Your task to perform on an android device: turn off wifi Image 0: 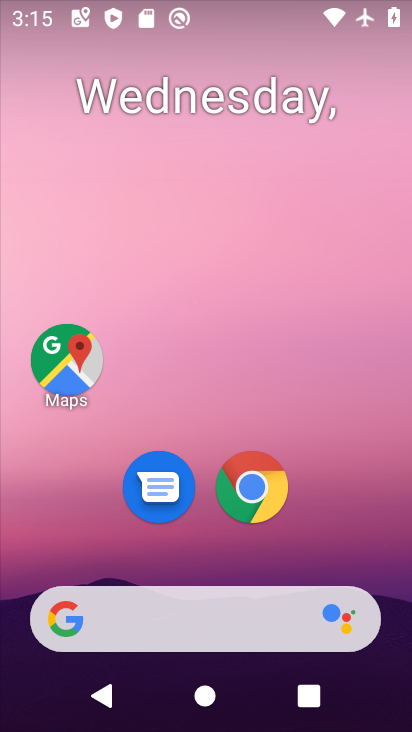
Step 0: drag from (315, 536) to (264, 75)
Your task to perform on an android device: turn off wifi Image 1: 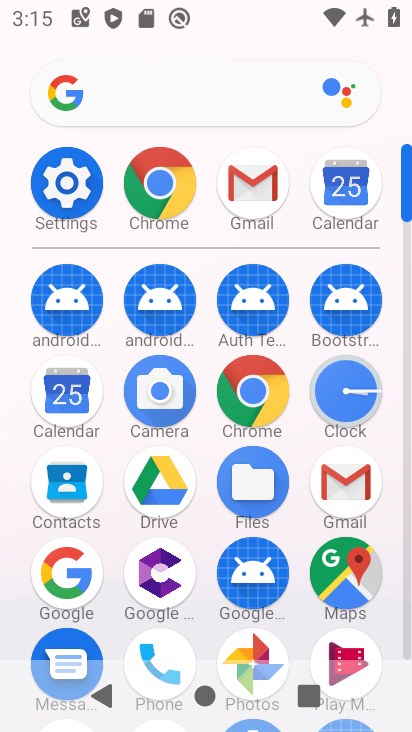
Step 1: click (95, 137)
Your task to perform on an android device: turn off wifi Image 2: 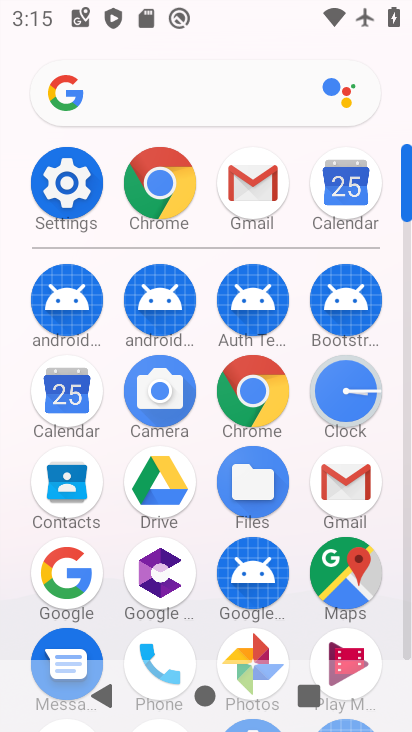
Step 2: click (62, 175)
Your task to perform on an android device: turn off wifi Image 3: 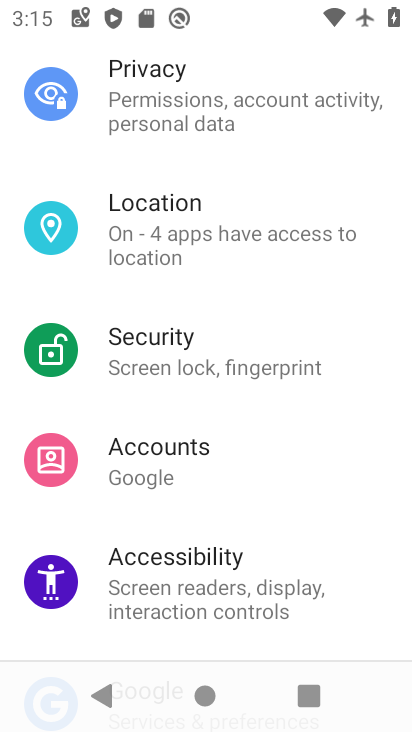
Step 3: drag from (177, 87) to (225, 524)
Your task to perform on an android device: turn off wifi Image 4: 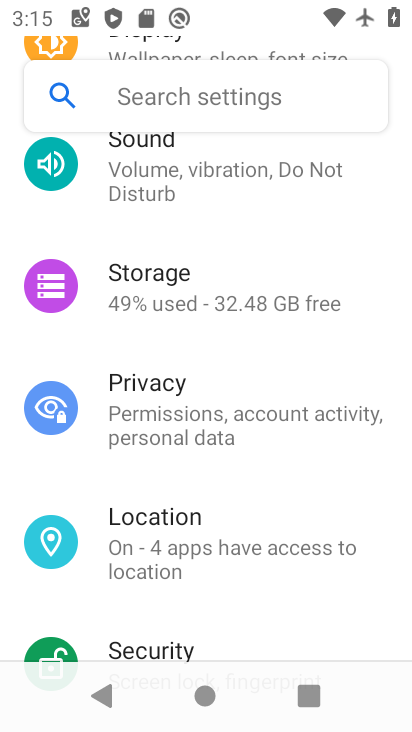
Step 4: drag from (178, 218) to (152, 580)
Your task to perform on an android device: turn off wifi Image 5: 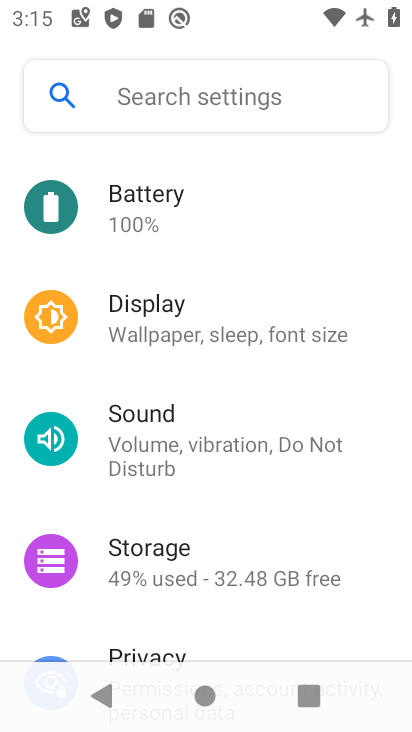
Step 5: drag from (173, 190) to (155, 627)
Your task to perform on an android device: turn off wifi Image 6: 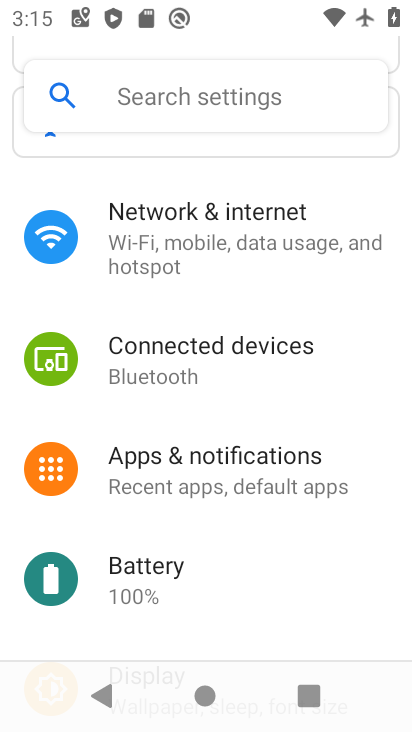
Step 6: drag from (159, 268) to (178, 615)
Your task to perform on an android device: turn off wifi Image 7: 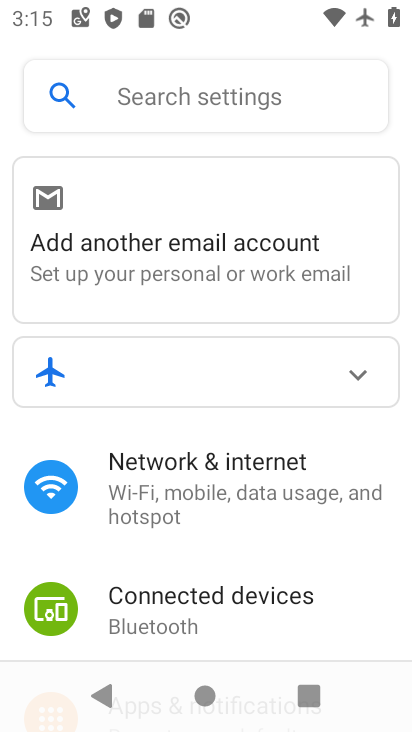
Step 7: click (154, 506)
Your task to perform on an android device: turn off wifi Image 8: 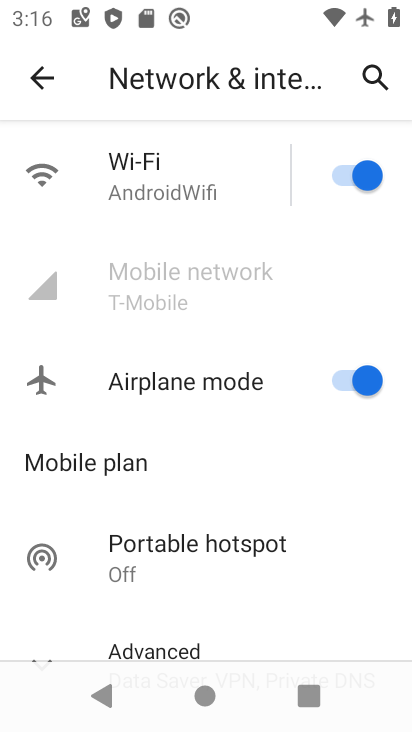
Step 8: click (362, 182)
Your task to perform on an android device: turn off wifi Image 9: 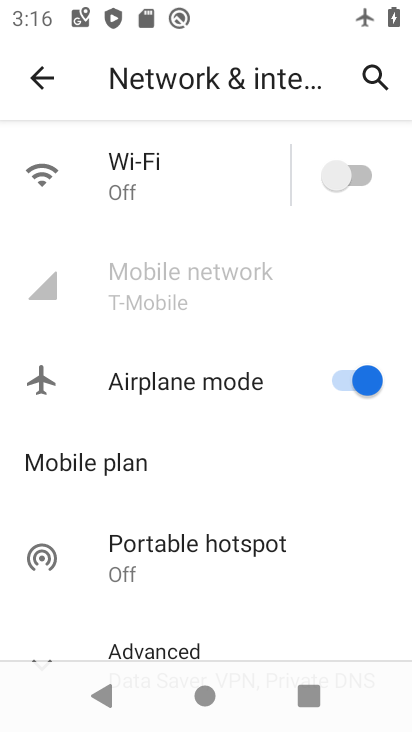
Step 9: task complete